Your task to perform on an android device: Open the calendar and show me this week's events? Image 0: 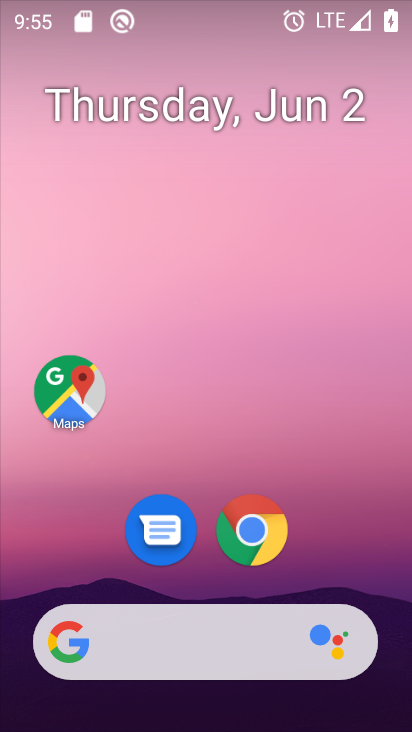
Step 0: drag from (207, 636) to (173, 351)
Your task to perform on an android device: Open the calendar and show me this week's events? Image 1: 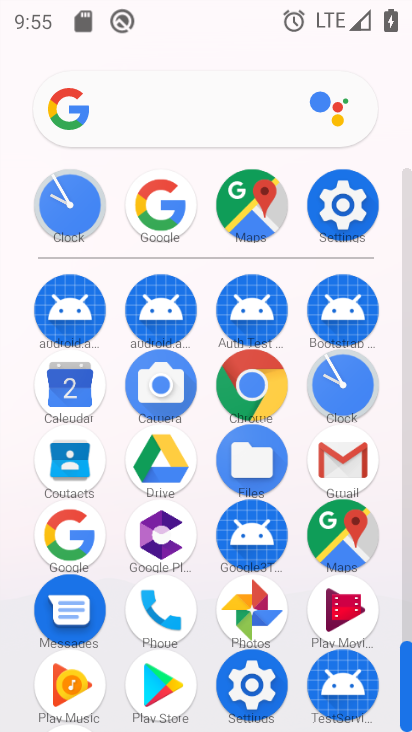
Step 1: click (69, 390)
Your task to perform on an android device: Open the calendar and show me this week's events? Image 2: 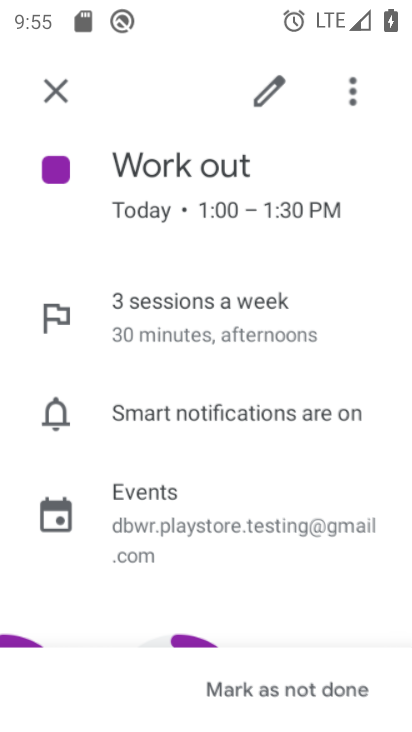
Step 2: click (56, 88)
Your task to perform on an android device: Open the calendar and show me this week's events? Image 3: 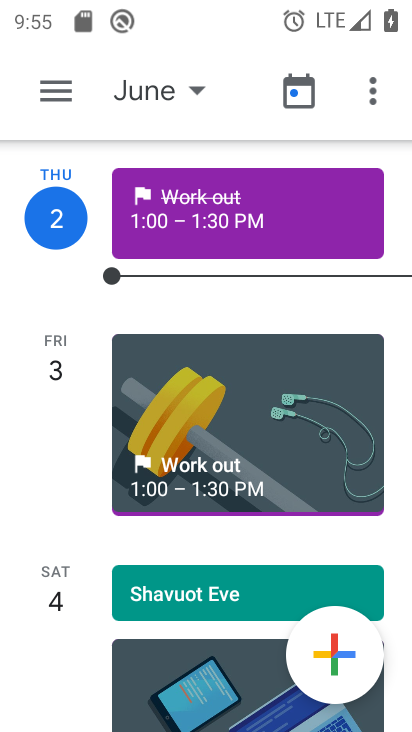
Step 3: click (144, 79)
Your task to perform on an android device: Open the calendar and show me this week's events? Image 4: 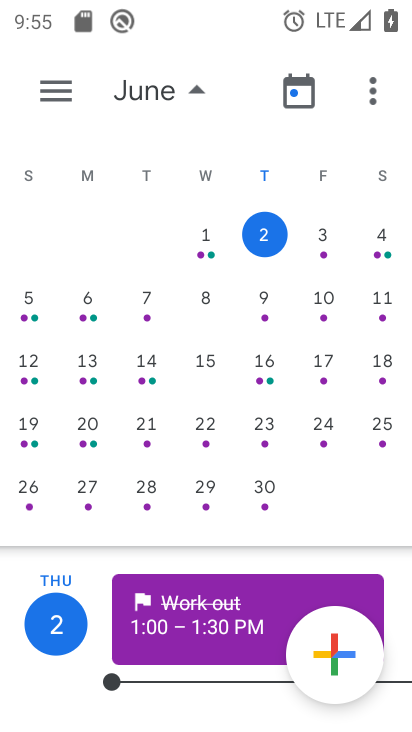
Step 4: click (326, 244)
Your task to perform on an android device: Open the calendar and show me this week's events? Image 5: 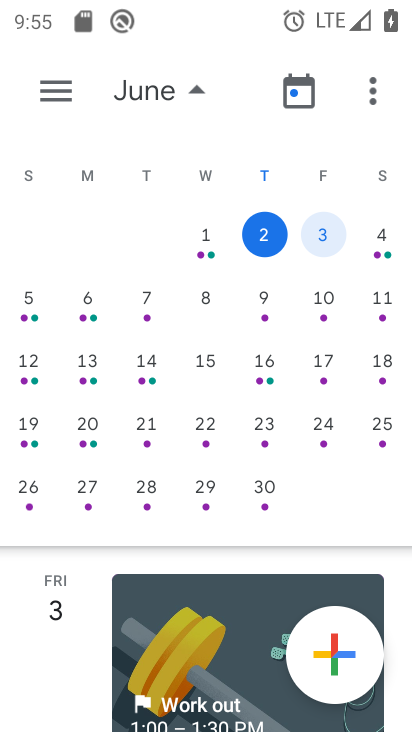
Step 5: task complete